Your task to perform on an android device: stop showing notifications on the lock screen Image 0: 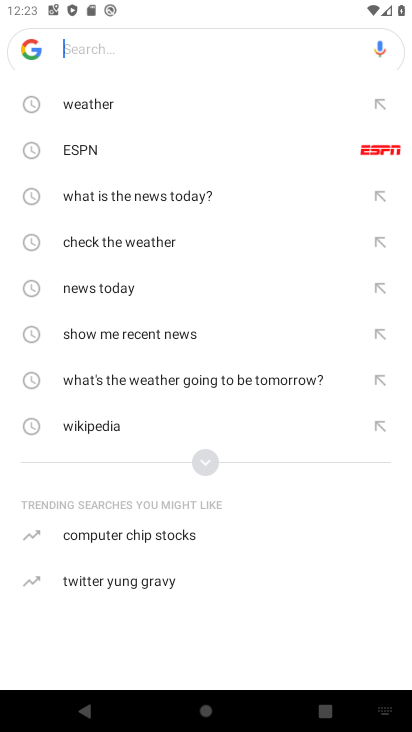
Step 0: press home button
Your task to perform on an android device: stop showing notifications on the lock screen Image 1: 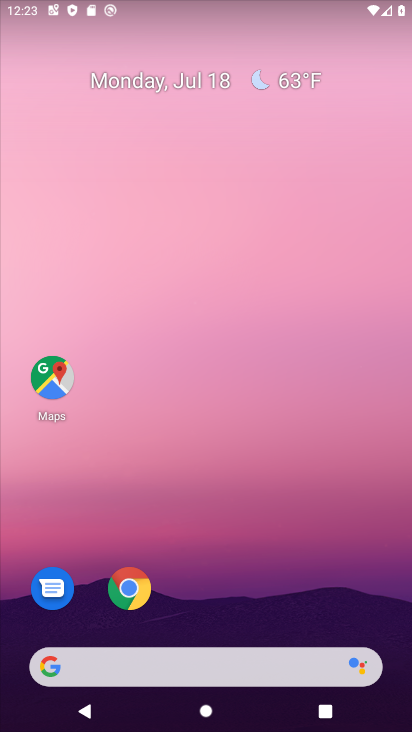
Step 1: drag from (240, 629) to (240, 66)
Your task to perform on an android device: stop showing notifications on the lock screen Image 2: 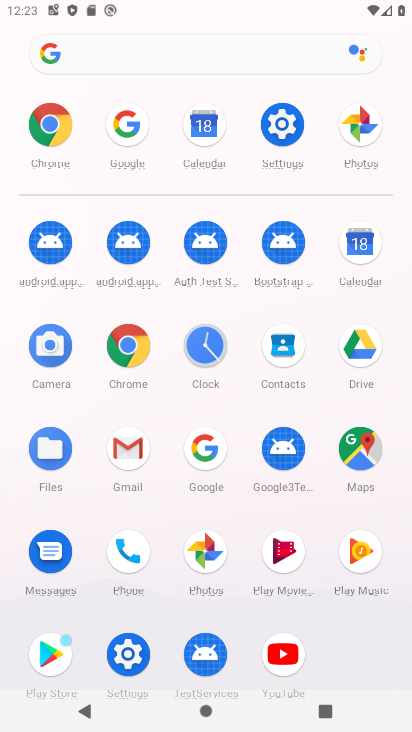
Step 2: click (284, 138)
Your task to perform on an android device: stop showing notifications on the lock screen Image 3: 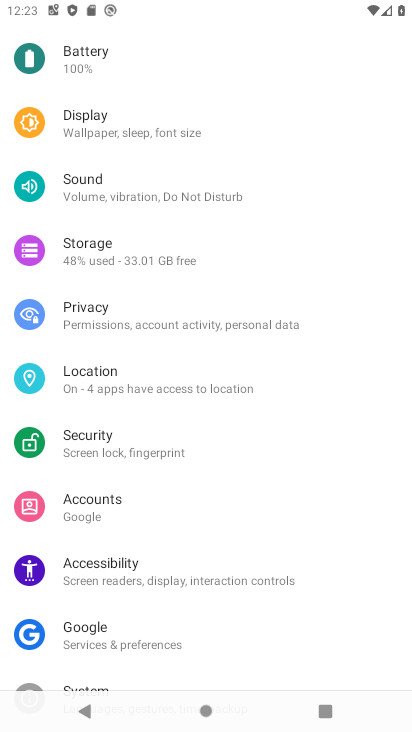
Step 3: drag from (118, 131) to (136, 443)
Your task to perform on an android device: stop showing notifications on the lock screen Image 4: 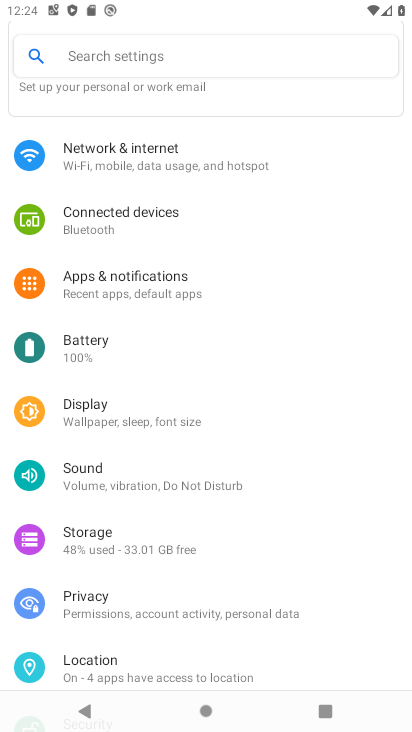
Step 4: click (95, 280)
Your task to perform on an android device: stop showing notifications on the lock screen Image 5: 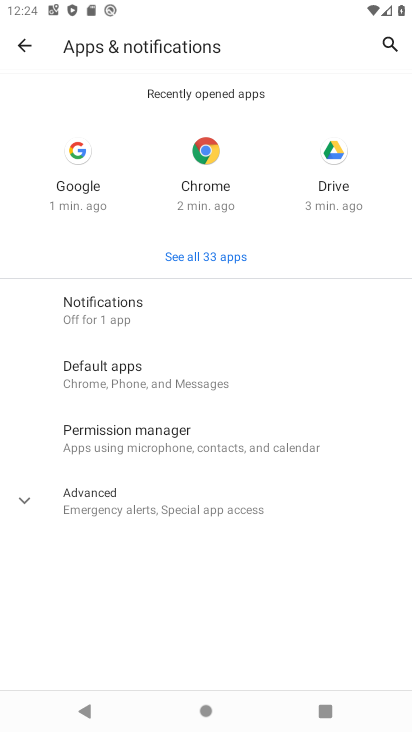
Step 5: click (99, 306)
Your task to perform on an android device: stop showing notifications on the lock screen Image 6: 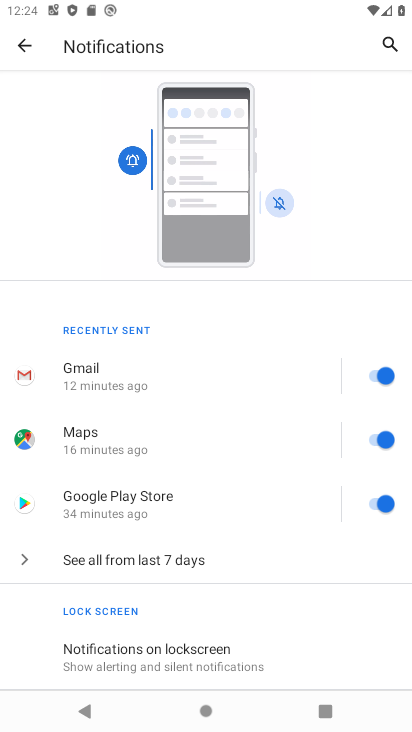
Step 6: click (136, 648)
Your task to perform on an android device: stop showing notifications on the lock screen Image 7: 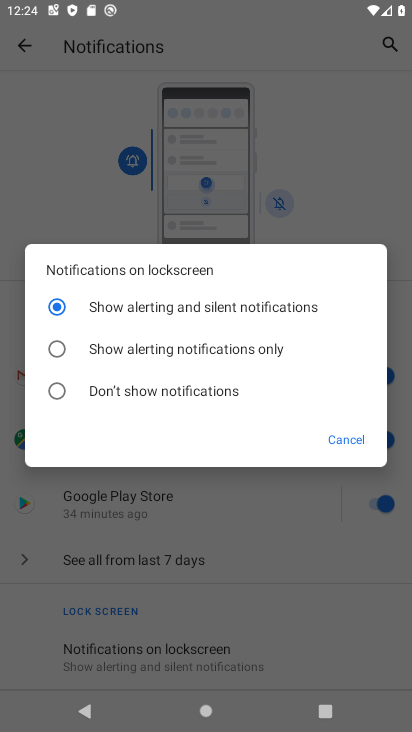
Step 7: click (57, 384)
Your task to perform on an android device: stop showing notifications on the lock screen Image 8: 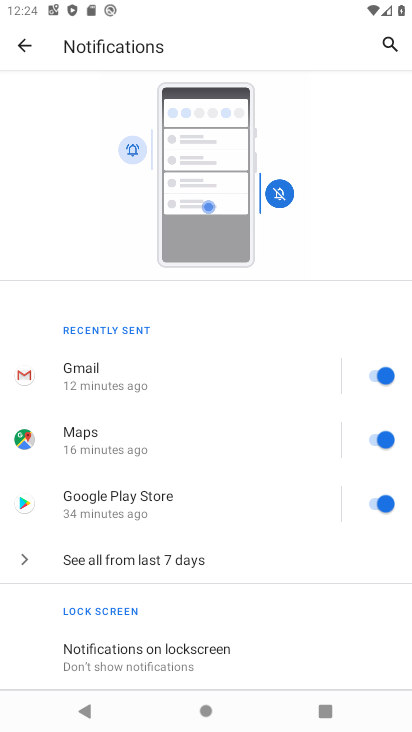
Step 8: task complete